Your task to perform on an android device: Open Chrome and go to the settings page Image 0: 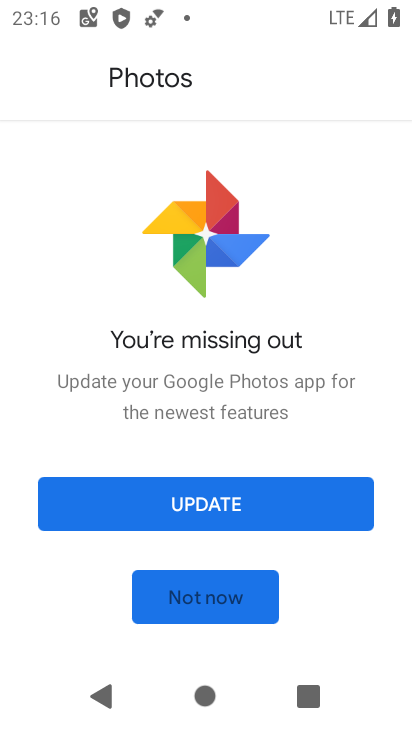
Step 0: click (237, 585)
Your task to perform on an android device: Open Chrome and go to the settings page Image 1: 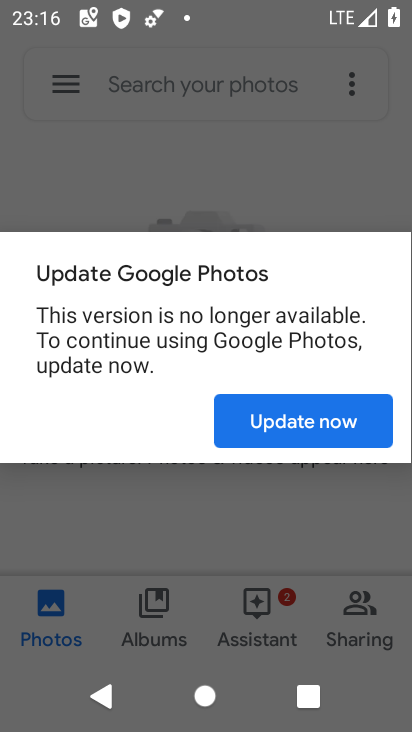
Step 1: press home button
Your task to perform on an android device: Open Chrome and go to the settings page Image 2: 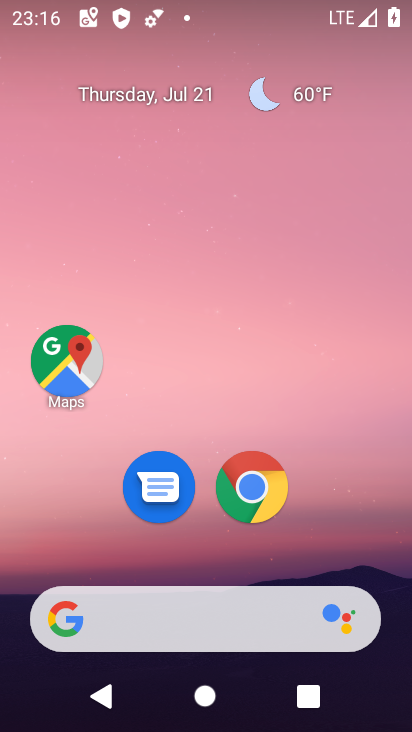
Step 2: click (259, 486)
Your task to perform on an android device: Open Chrome and go to the settings page Image 3: 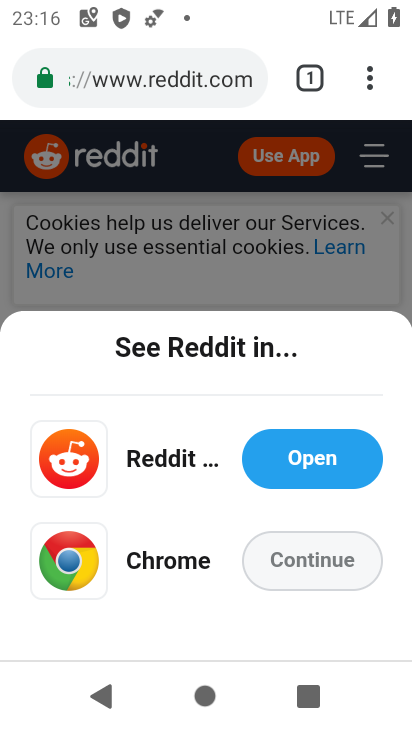
Step 3: task complete